Your task to perform on an android device: change the clock display to analog Image 0: 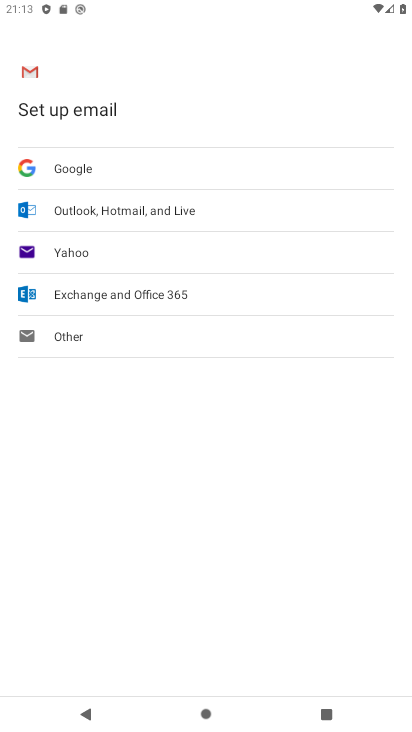
Step 0: press home button
Your task to perform on an android device: change the clock display to analog Image 1: 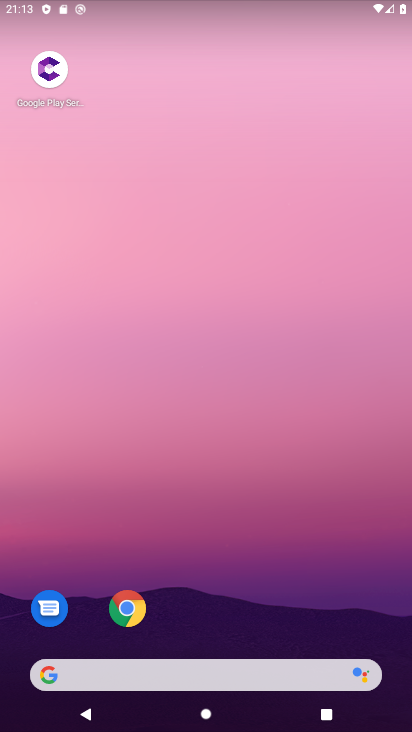
Step 1: drag from (180, 251) to (183, 116)
Your task to perform on an android device: change the clock display to analog Image 2: 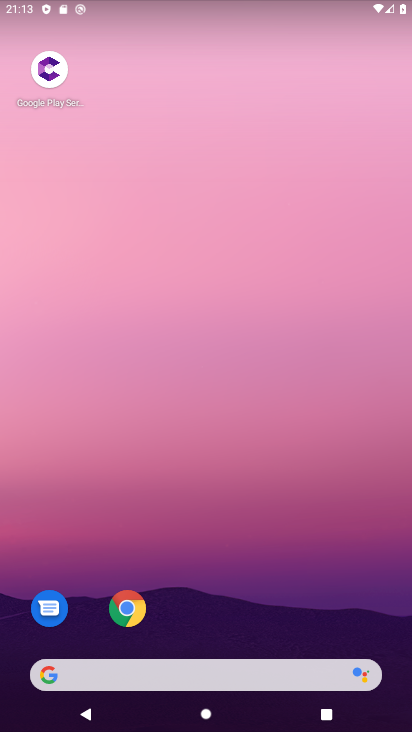
Step 2: drag from (236, 306) to (266, 65)
Your task to perform on an android device: change the clock display to analog Image 3: 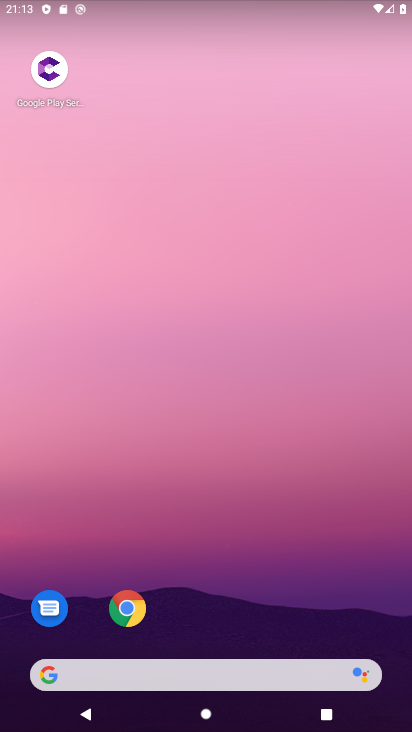
Step 3: drag from (185, 516) to (169, 5)
Your task to perform on an android device: change the clock display to analog Image 4: 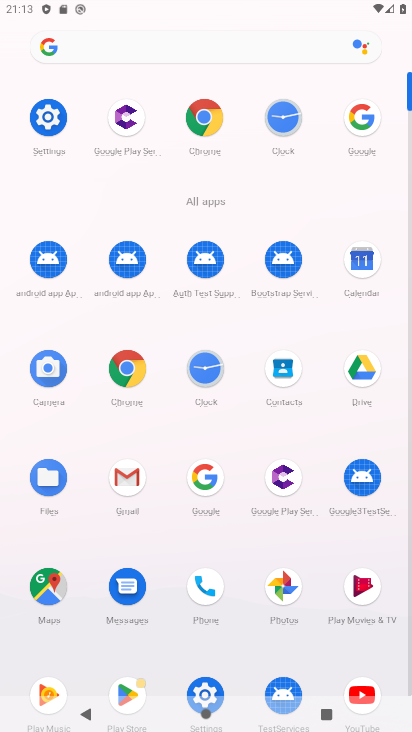
Step 4: click (213, 365)
Your task to perform on an android device: change the clock display to analog Image 5: 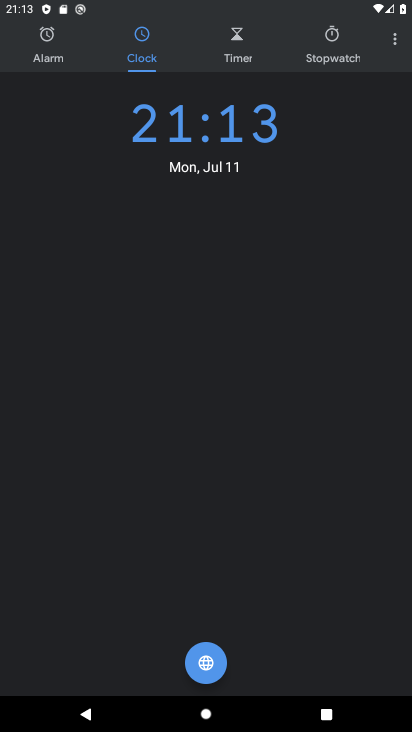
Step 5: click (397, 47)
Your task to perform on an android device: change the clock display to analog Image 6: 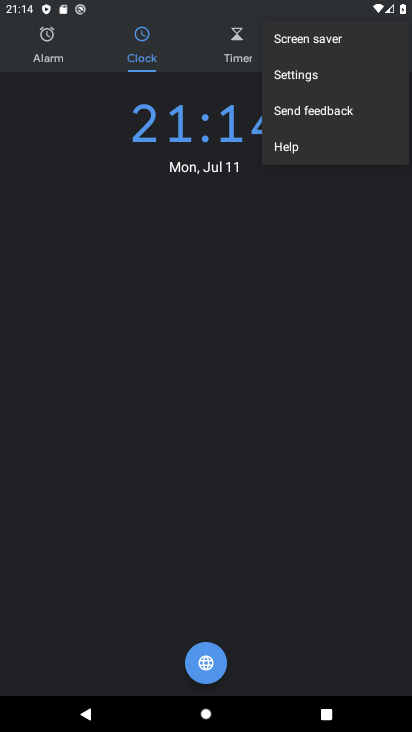
Step 6: click (313, 80)
Your task to perform on an android device: change the clock display to analog Image 7: 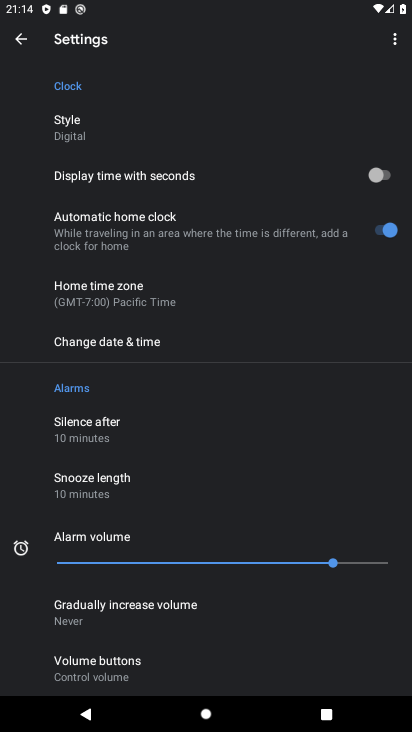
Step 7: click (61, 129)
Your task to perform on an android device: change the clock display to analog Image 8: 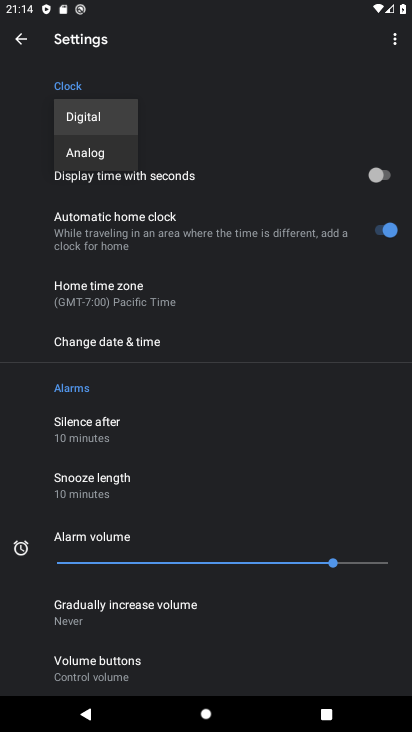
Step 8: click (76, 152)
Your task to perform on an android device: change the clock display to analog Image 9: 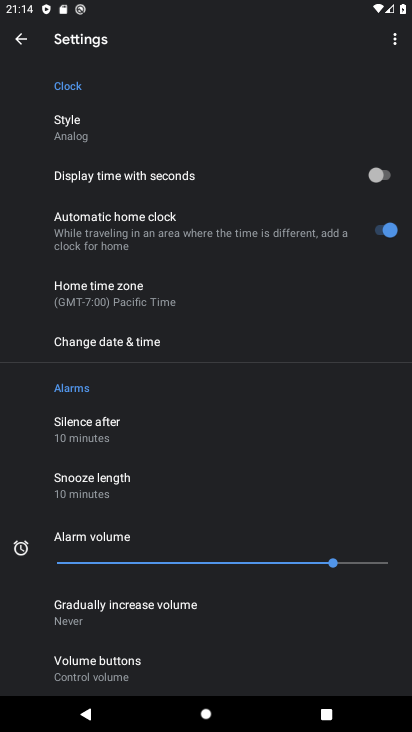
Step 9: task complete